Your task to perform on an android device: open app "Pandora - Music & Podcasts" (install if not already installed) Image 0: 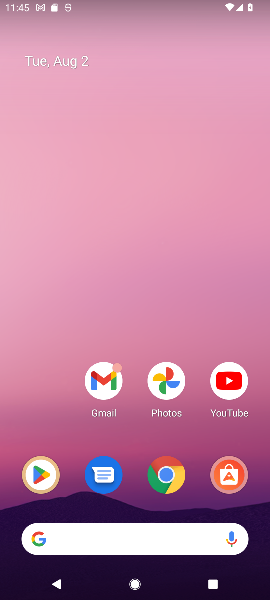
Step 0: click (39, 471)
Your task to perform on an android device: open app "Pandora - Music & Podcasts" (install if not already installed) Image 1: 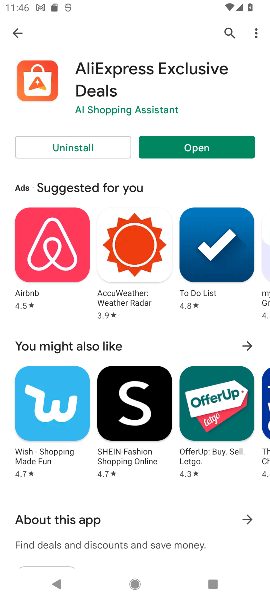
Step 1: click (228, 26)
Your task to perform on an android device: open app "Pandora - Music & Podcasts" (install if not already installed) Image 2: 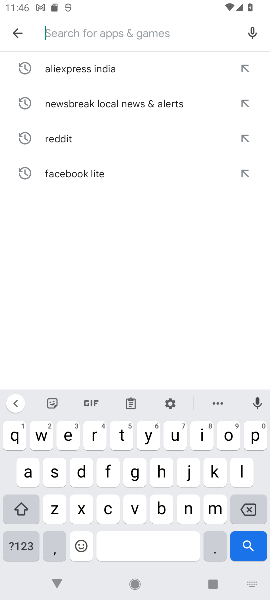
Step 2: type "Pandora - Music & Podcasts"
Your task to perform on an android device: open app "Pandora - Music & Podcasts" (install if not already installed) Image 3: 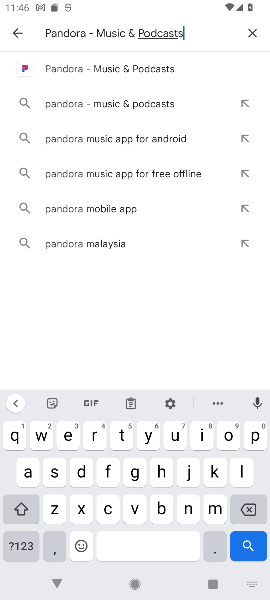
Step 3: type ""
Your task to perform on an android device: open app "Pandora - Music & Podcasts" (install if not already installed) Image 4: 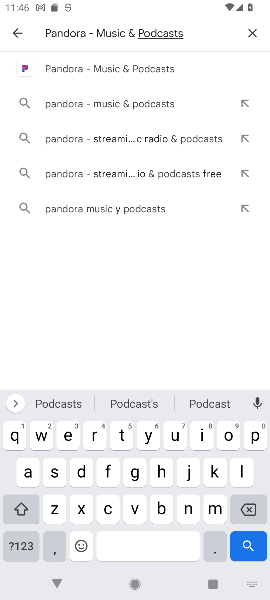
Step 4: click (120, 62)
Your task to perform on an android device: open app "Pandora - Music & Podcasts" (install if not already installed) Image 5: 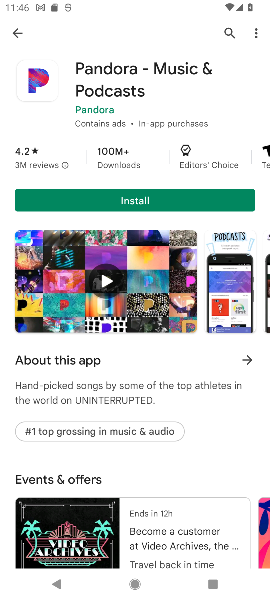
Step 5: click (108, 189)
Your task to perform on an android device: open app "Pandora - Music & Podcasts" (install if not already installed) Image 6: 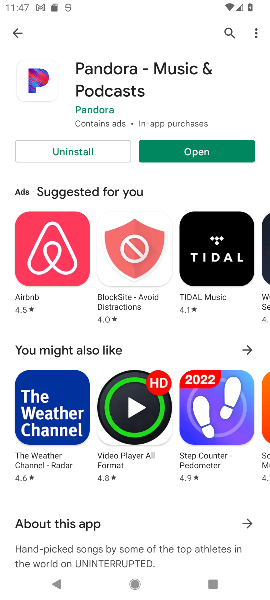
Step 6: click (200, 151)
Your task to perform on an android device: open app "Pandora - Music & Podcasts" (install if not already installed) Image 7: 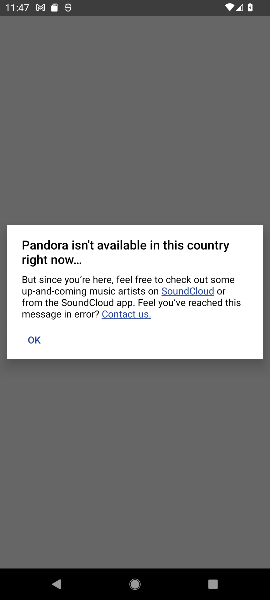
Step 7: click (32, 342)
Your task to perform on an android device: open app "Pandora - Music & Podcasts" (install if not already installed) Image 8: 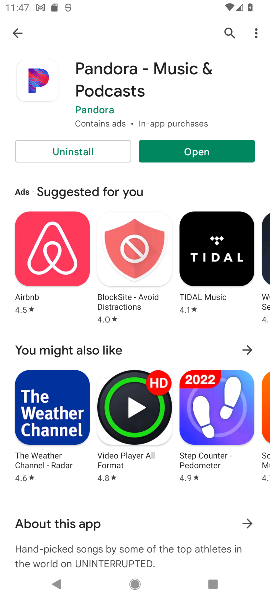
Step 8: click (195, 149)
Your task to perform on an android device: open app "Pandora - Music & Podcasts" (install if not already installed) Image 9: 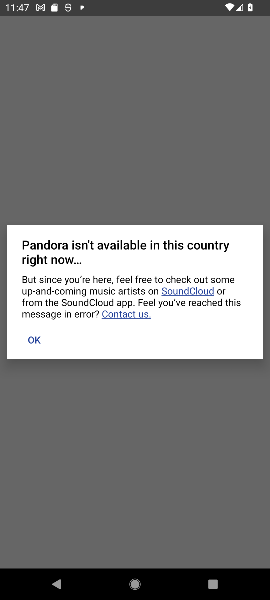
Step 9: task complete